Your task to perform on an android device: toggle location history Image 0: 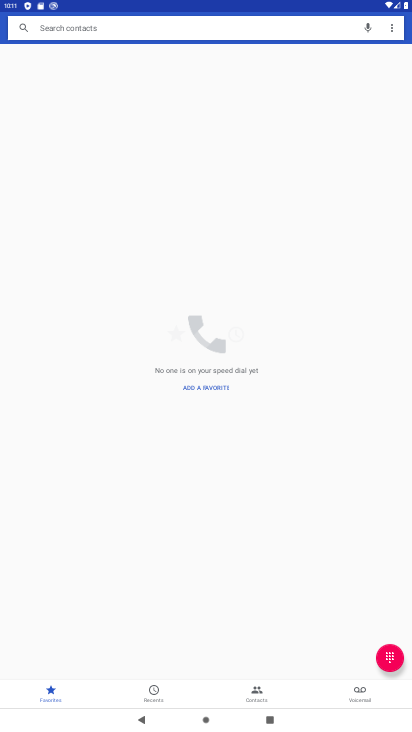
Step 0: press home button
Your task to perform on an android device: toggle location history Image 1: 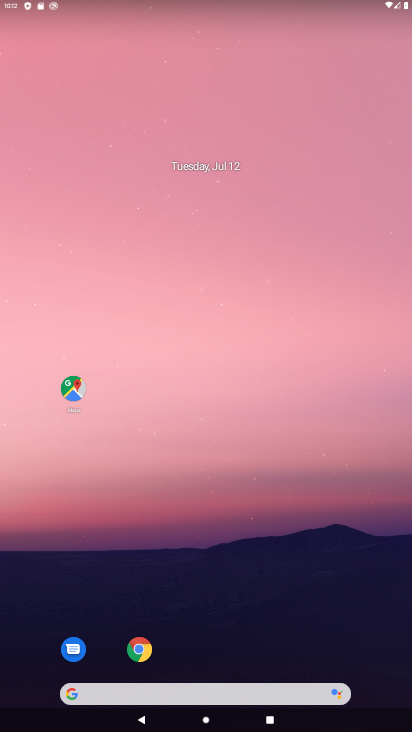
Step 1: click (74, 389)
Your task to perform on an android device: toggle location history Image 2: 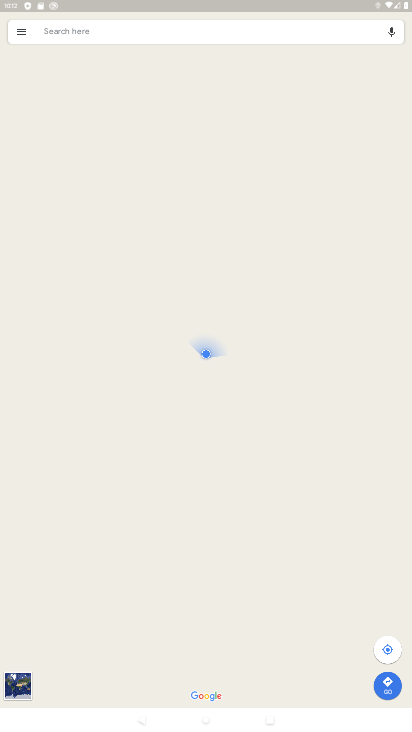
Step 2: click (19, 34)
Your task to perform on an android device: toggle location history Image 3: 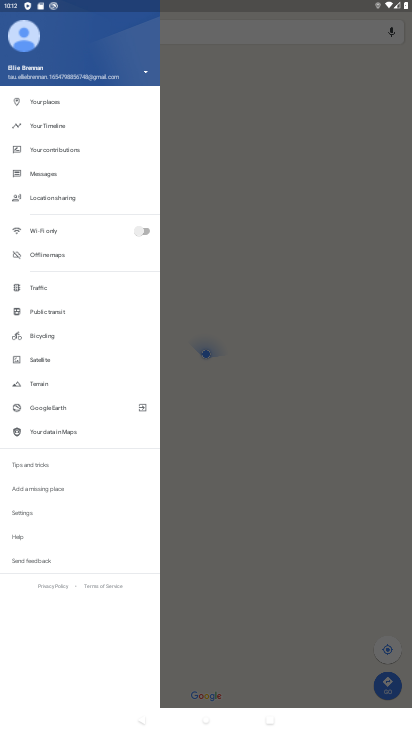
Step 3: click (30, 511)
Your task to perform on an android device: toggle location history Image 4: 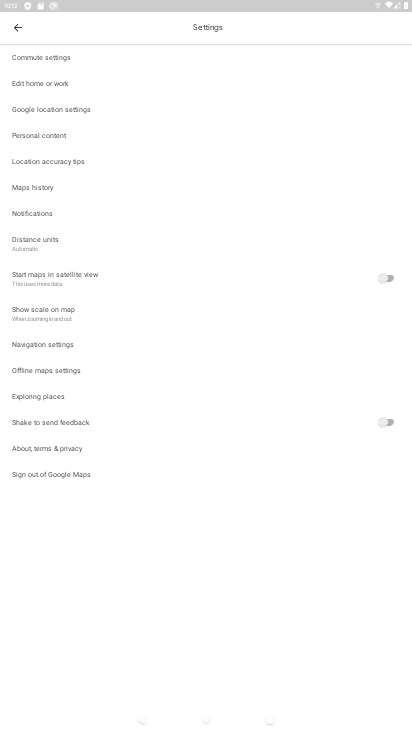
Step 4: click (32, 134)
Your task to perform on an android device: toggle location history Image 5: 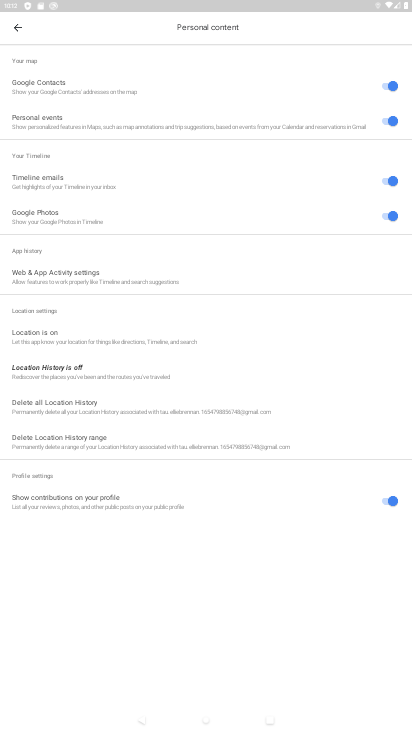
Step 5: click (67, 370)
Your task to perform on an android device: toggle location history Image 6: 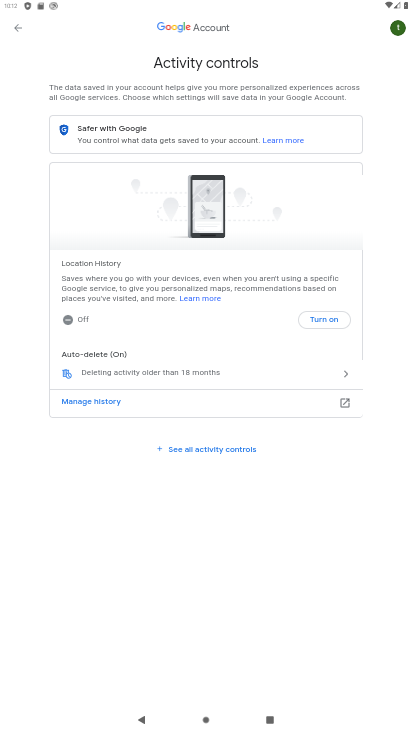
Step 6: click (313, 316)
Your task to perform on an android device: toggle location history Image 7: 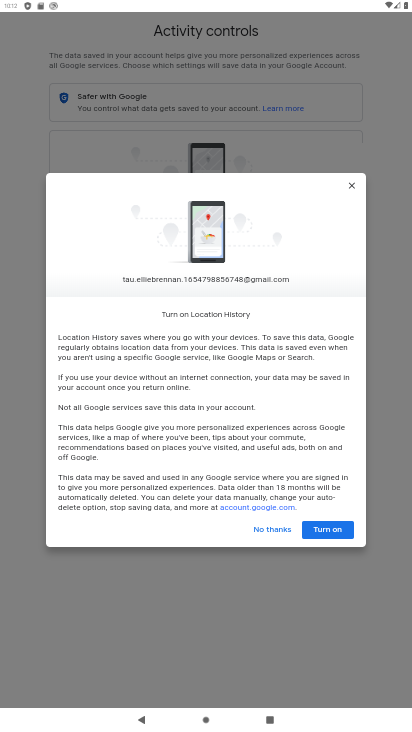
Step 7: click (325, 529)
Your task to perform on an android device: toggle location history Image 8: 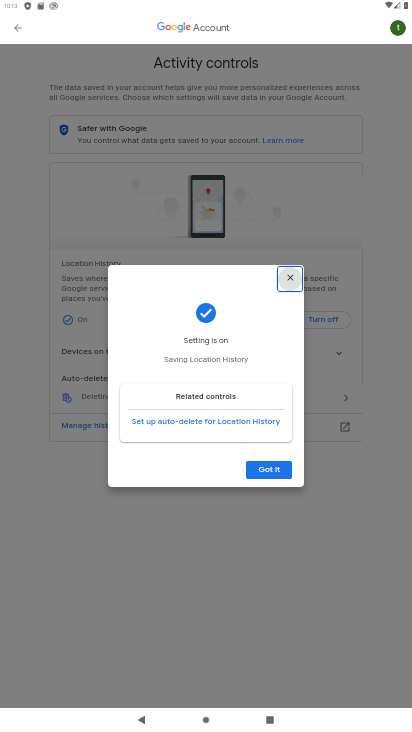
Step 8: click (266, 470)
Your task to perform on an android device: toggle location history Image 9: 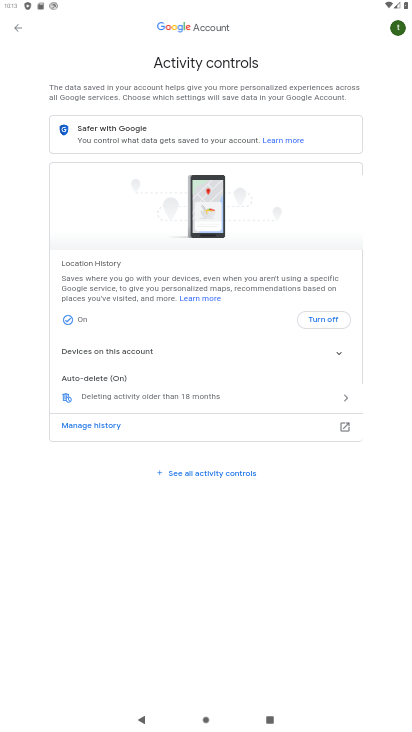
Step 9: task complete